Your task to perform on an android device: Open the stopwatch Image 0: 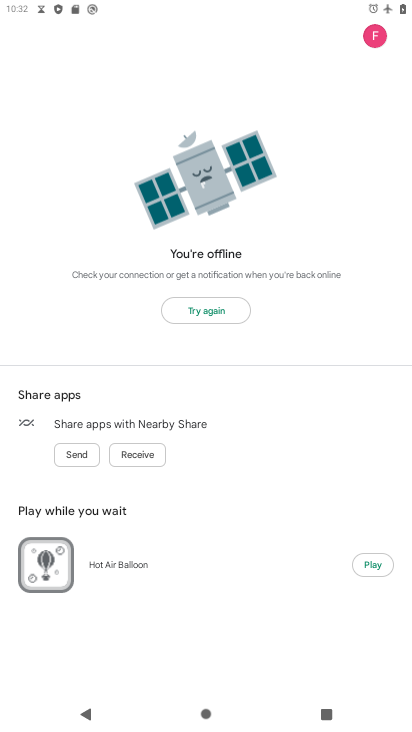
Step 0: press home button
Your task to perform on an android device: Open the stopwatch Image 1: 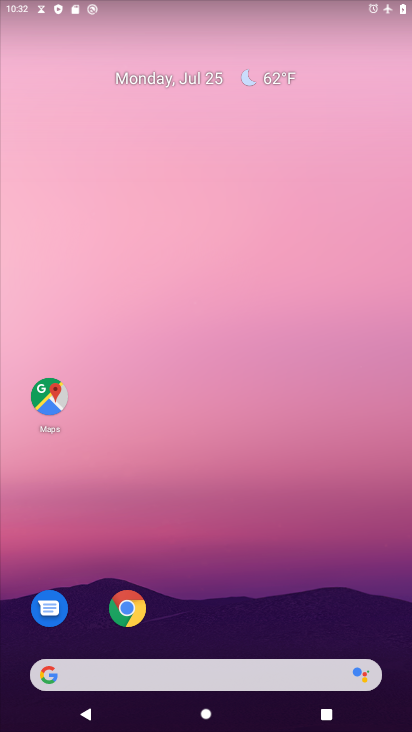
Step 1: drag from (155, 671) to (260, 75)
Your task to perform on an android device: Open the stopwatch Image 2: 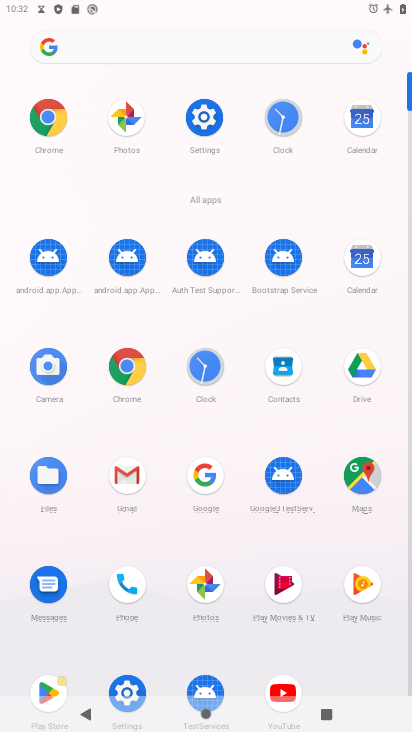
Step 2: click (286, 120)
Your task to perform on an android device: Open the stopwatch Image 3: 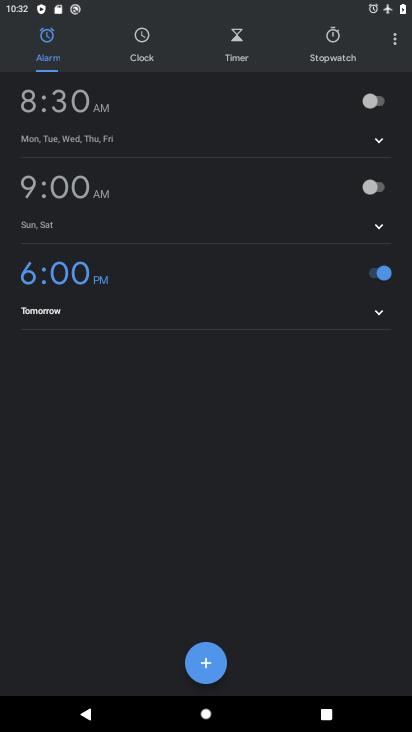
Step 3: click (332, 38)
Your task to perform on an android device: Open the stopwatch Image 4: 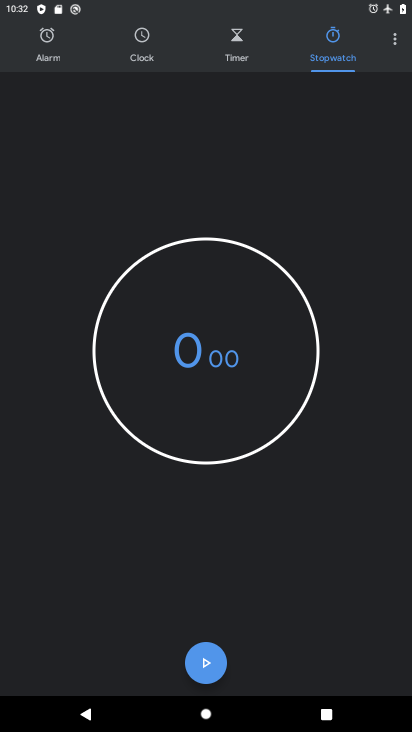
Step 4: task complete